Your task to perform on an android device: toggle location history Image 0: 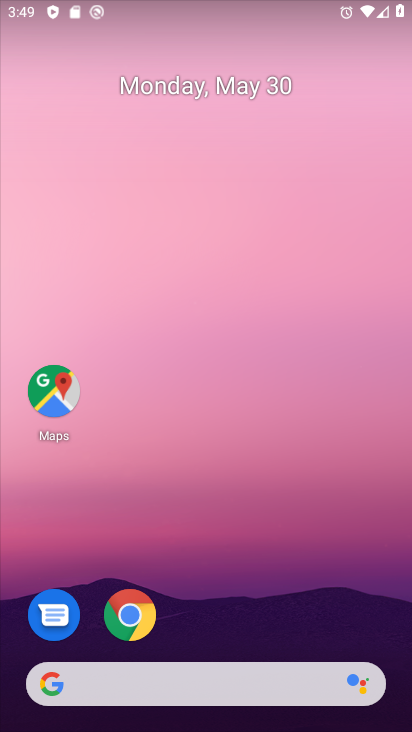
Step 0: drag from (216, 620) to (303, 27)
Your task to perform on an android device: toggle location history Image 1: 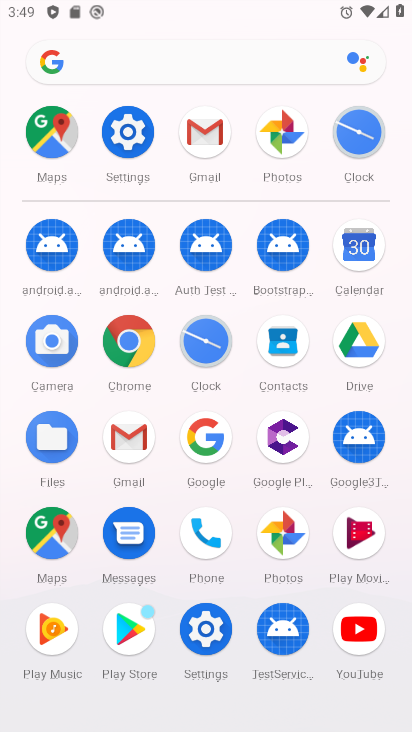
Step 1: click (127, 127)
Your task to perform on an android device: toggle location history Image 2: 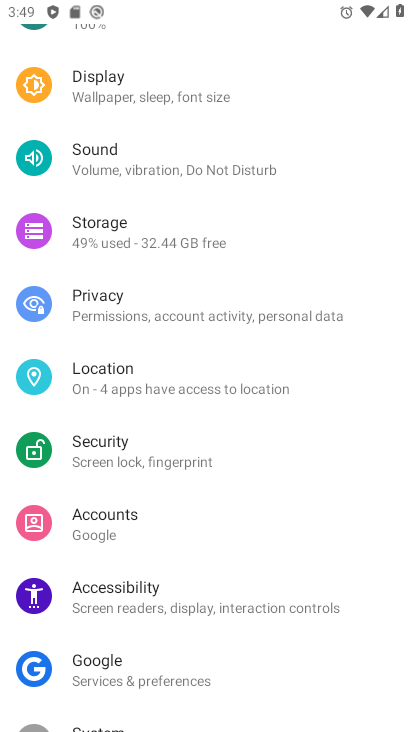
Step 2: click (191, 381)
Your task to perform on an android device: toggle location history Image 3: 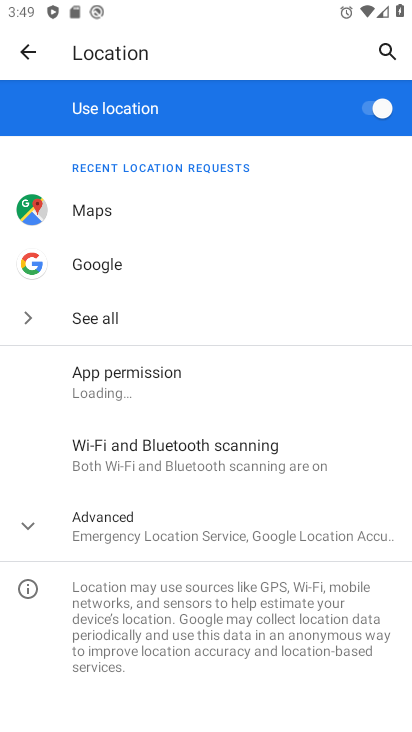
Step 3: click (25, 528)
Your task to perform on an android device: toggle location history Image 4: 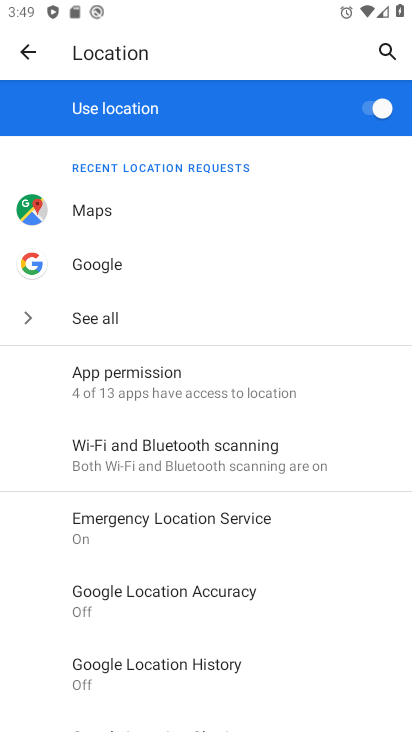
Step 4: click (180, 662)
Your task to perform on an android device: toggle location history Image 5: 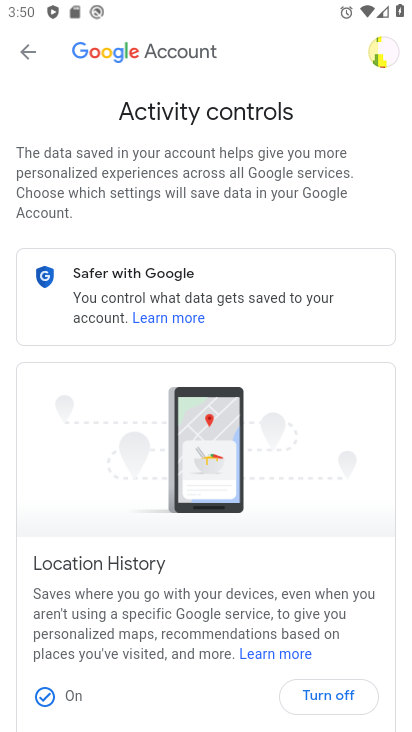
Step 5: click (338, 686)
Your task to perform on an android device: toggle location history Image 6: 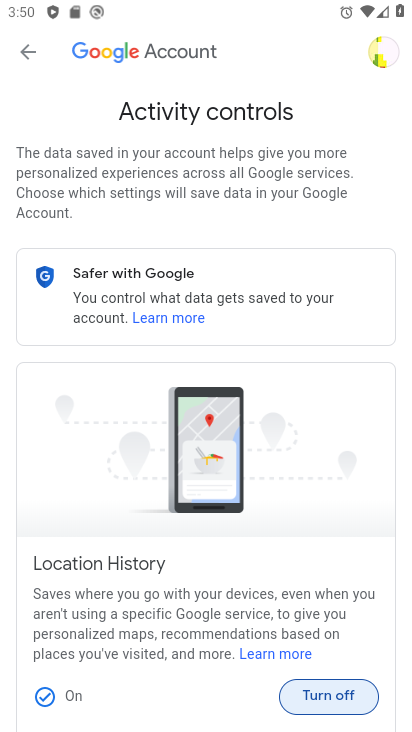
Step 6: click (338, 686)
Your task to perform on an android device: toggle location history Image 7: 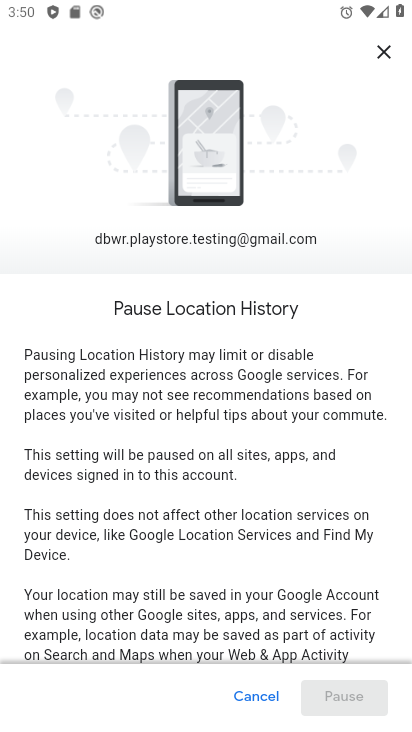
Step 7: drag from (293, 554) to (303, 129)
Your task to perform on an android device: toggle location history Image 8: 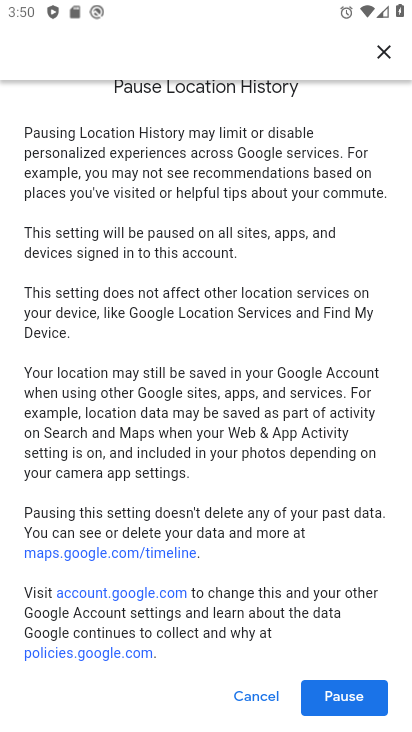
Step 8: click (349, 701)
Your task to perform on an android device: toggle location history Image 9: 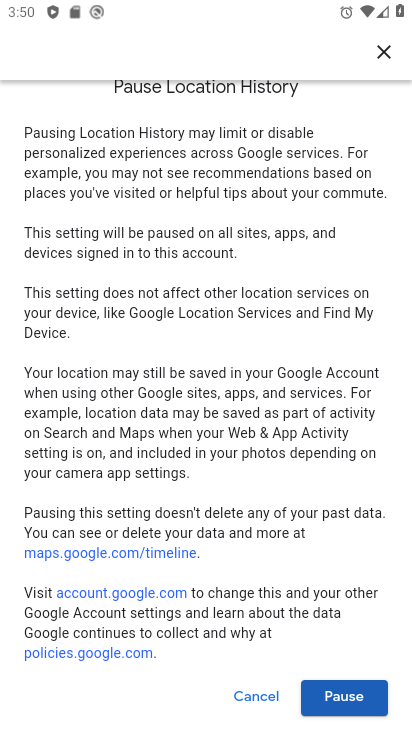
Step 9: click (349, 699)
Your task to perform on an android device: toggle location history Image 10: 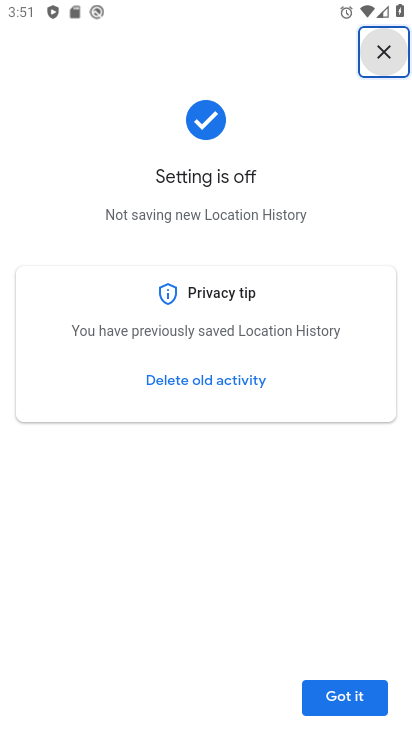
Step 10: click (349, 699)
Your task to perform on an android device: toggle location history Image 11: 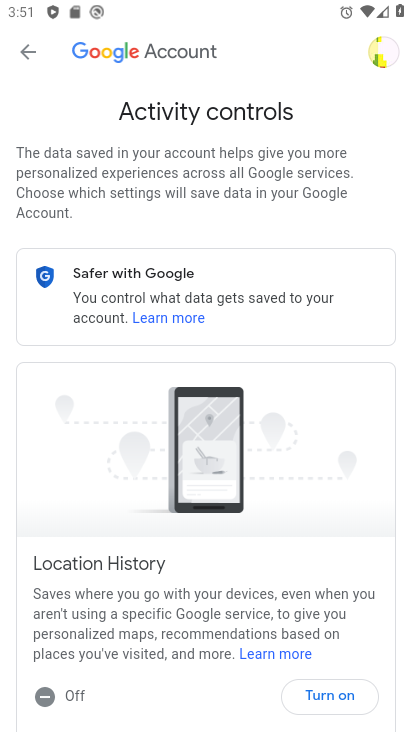
Step 11: task complete